Your task to perform on an android device: clear history in the chrome app Image 0: 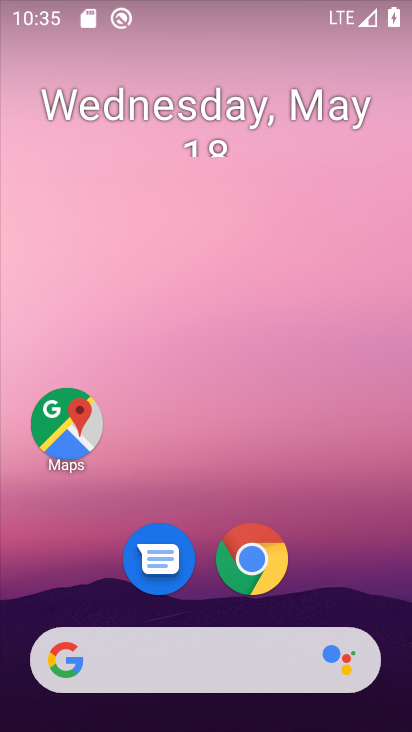
Step 0: drag from (208, 596) to (274, 74)
Your task to perform on an android device: clear history in the chrome app Image 1: 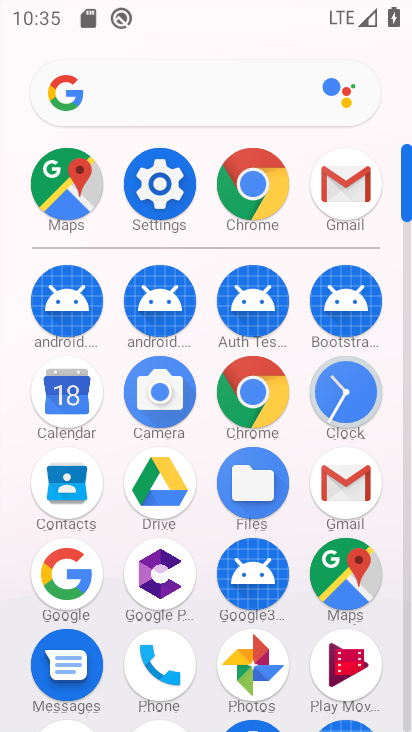
Step 1: click (258, 381)
Your task to perform on an android device: clear history in the chrome app Image 2: 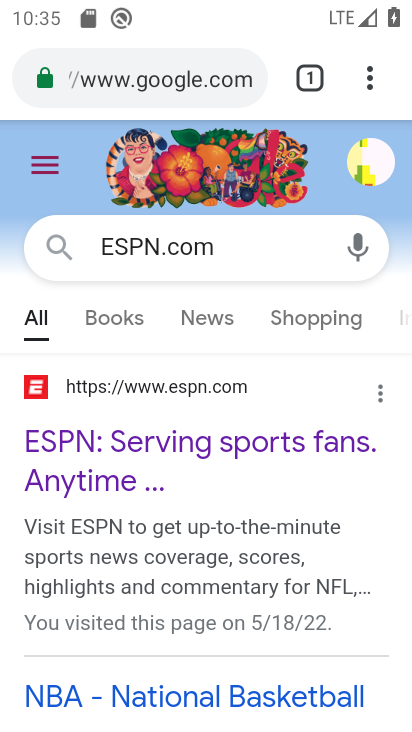
Step 2: click (377, 74)
Your task to perform on an android device: clear history in the chrome app Image 3: 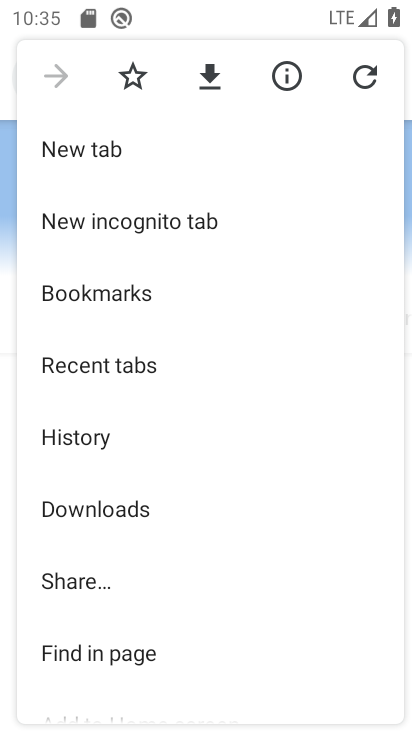
Step 3: click (110, 452)
Your task to perform on an android device: clear history in the chrome app Image 4: 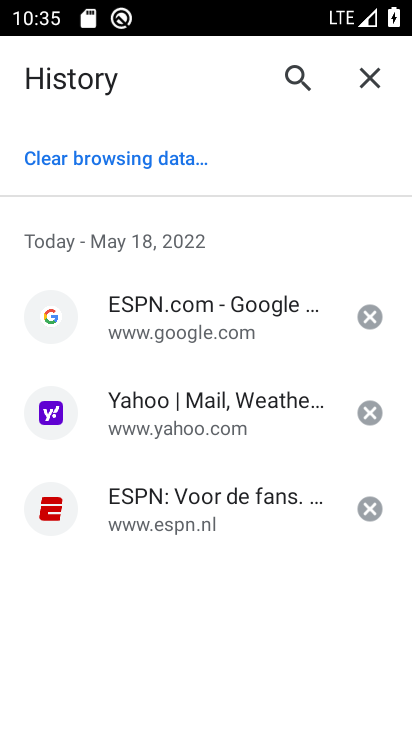
Step 4: click (137, 163)
Your task to perform on an android device: clear history in the chrome app Image 5: 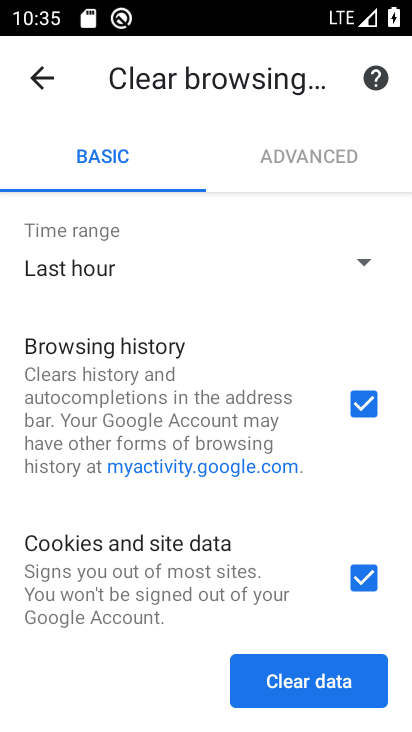
Step 5: drag from (332, 476) to (375, 170)
Your task to perform on an android device: clear history in the chrome app Image 6: 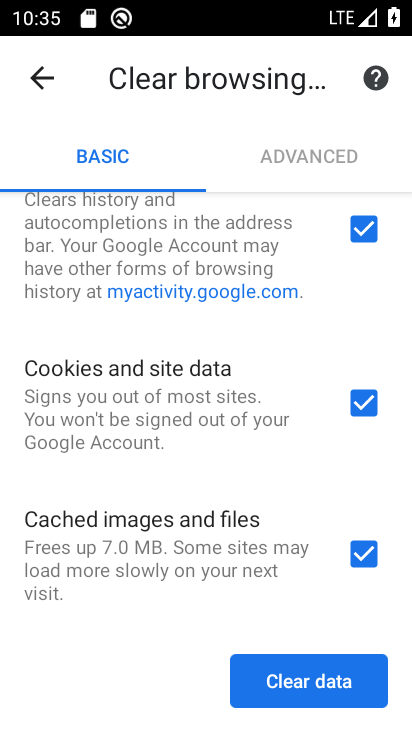
Step 6: click (365, 393)
Your task to perform on an android device: clear history in the chrome app Image 7: 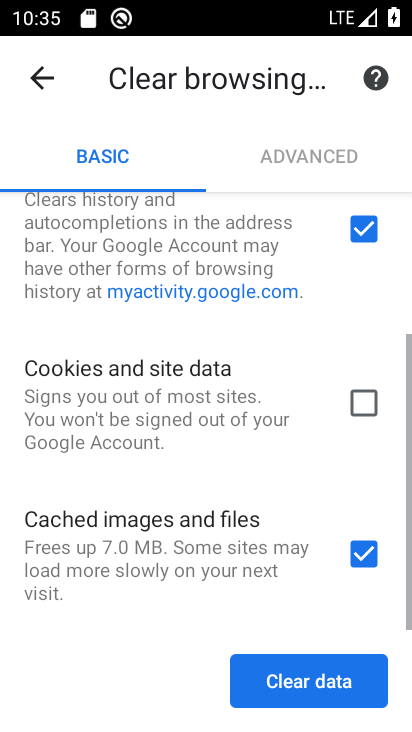
Step 7: click (371, 547)
Your task to perform on an android device: clear history in the chrome app Image 8: 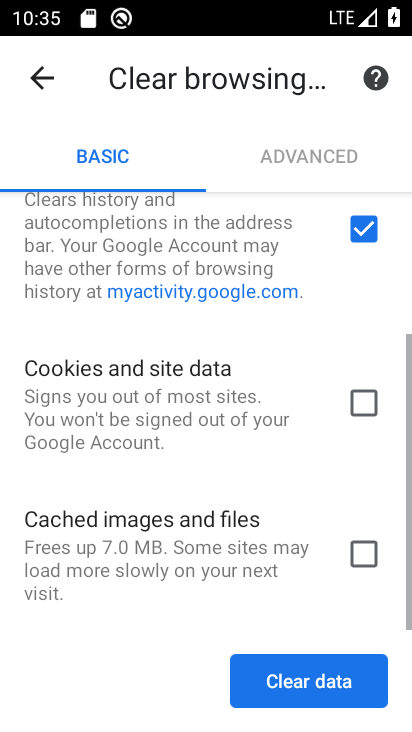
Step 8: click (340, 688)
Your task to perform on an android device: clear history in the chrome app Image 9: 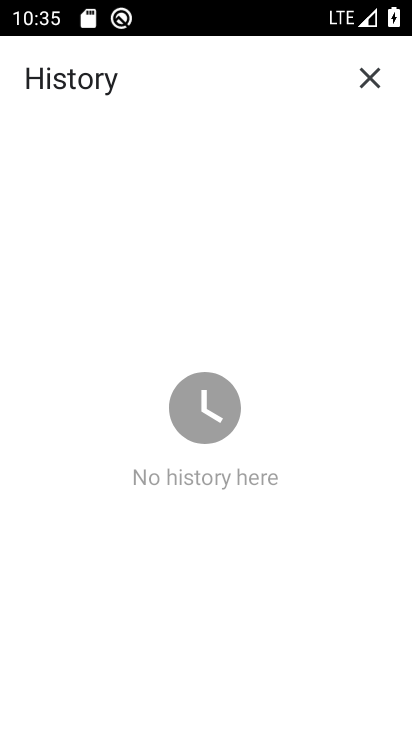
Step 9: task complete